Your task to perform on an android device: open a bookmark in the chrome app Image 0: 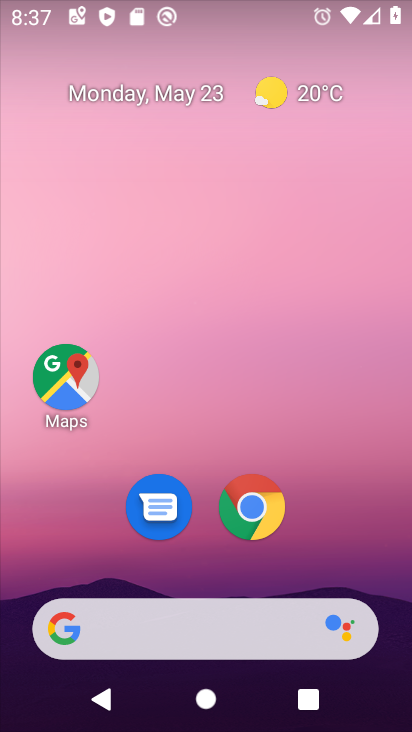
Step 0: click (260, 504)
Your task to perform on an android device: open a bookmark in the chrome app Image 1: 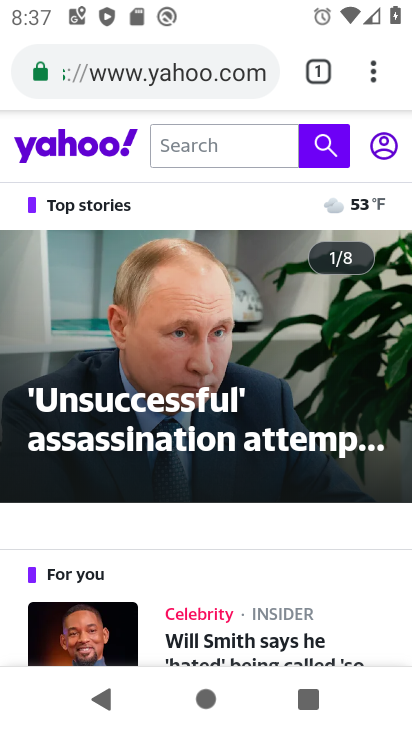
Step 1: click (375, 73)
Your task to perform on an android device: open a bookmark in the chrome app Image 2: 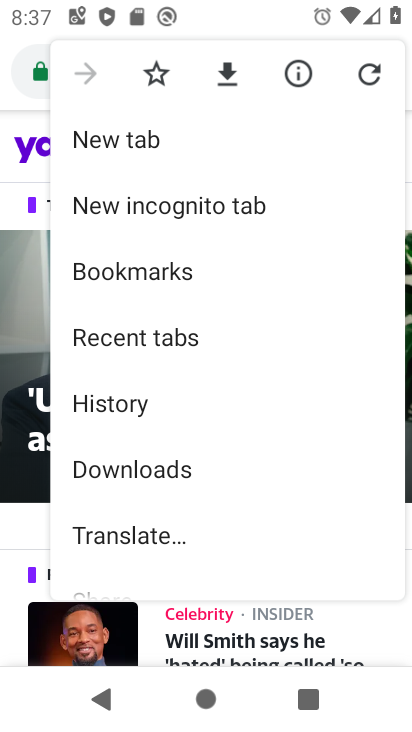
Step 2: click (192, 270)
Your task to perform on an android device: open a bookmark in the chrome app Image 3: 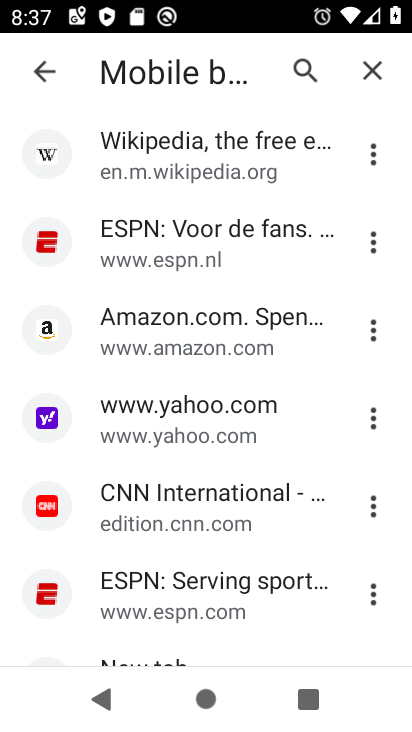
Step 3: click (164, 497)
Your task to perform on an android device: open a bookmark in the chrome app Image 4: 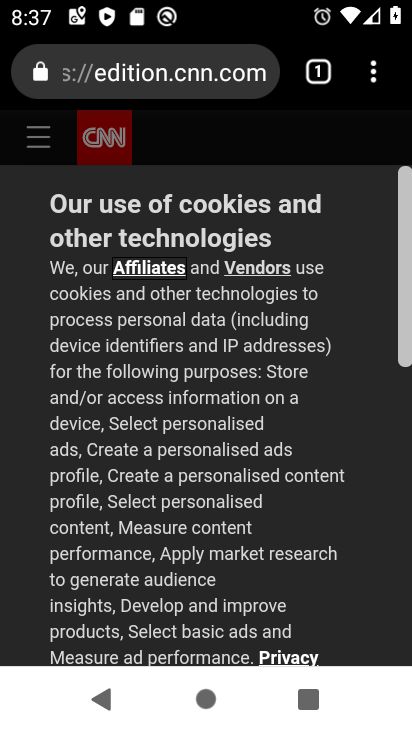
Step 4: task complete